Your task to perform on an android device: turn off smart reply in the gmail app Image 0: 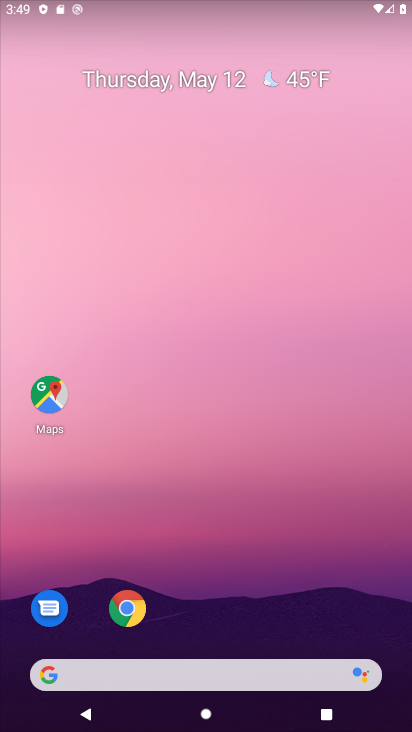
Step 0: drag from (240, 549) to (219, 0)
Your task to perform on an android device: turn off smart reply in the gmail app Image 1: 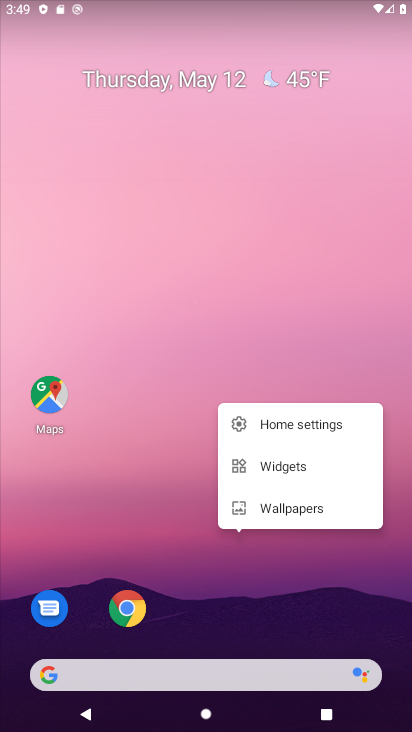
Step 1: click (162, 531)
Your task to perform on an android device: turn off smart reply in the gmail app Image 2: 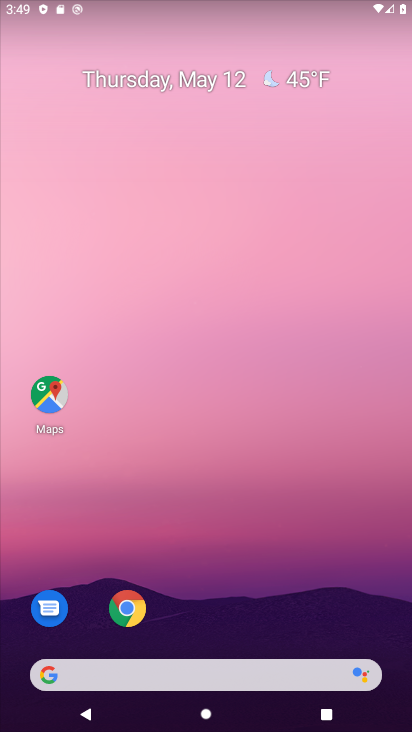
Step 2: drag from (162, 531) to (183, 34)
Your task to perform on an android device: turn off smart reply in the gmail app Image 3: 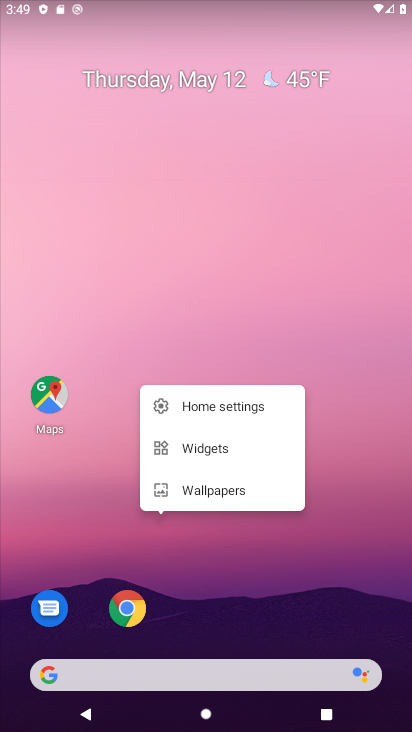
Step 3: click (319, 560)
Your task to perform on an android device: turn off smart reply in the gmail app Image 4: 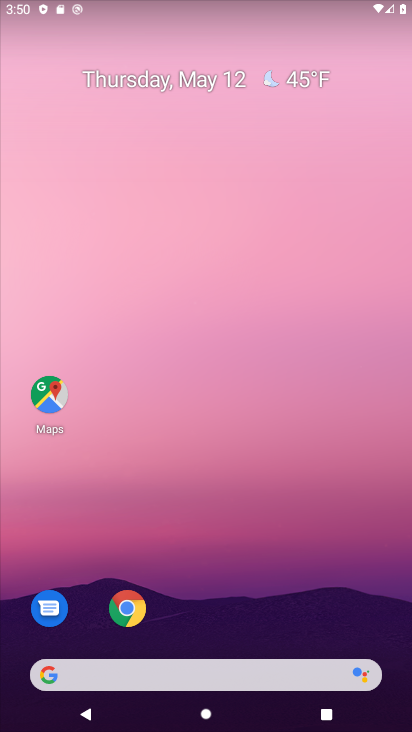
Step 4: drag from (319, 560) to (224, 130)
Your task to perform on an android device: turn off smart reply in the gmail app Image 5: 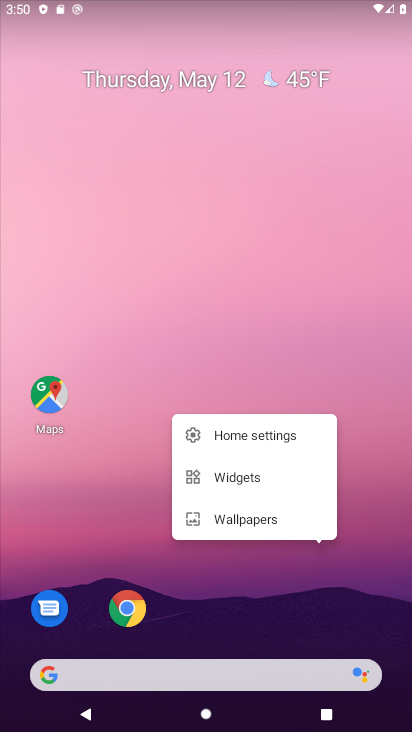
Step 5: click (195, 558)
Your task to perform on an android device: turn off smart reply in the gmail app Image 6: 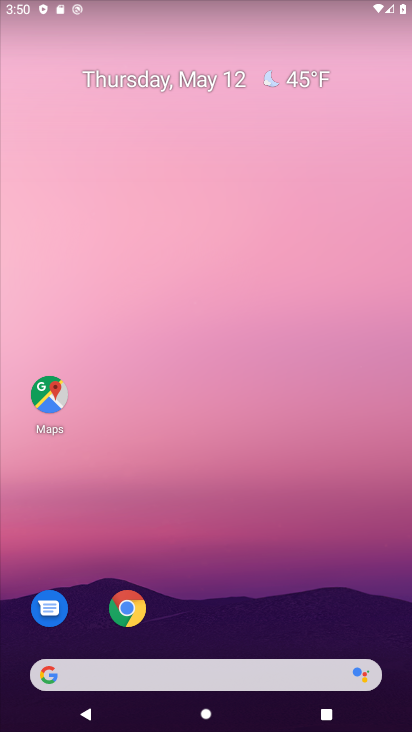
Step 6: drag from (195, 558) to (186, 113)
Your task to perform on an android device: turn off smart reply in the gmail app Image 7: 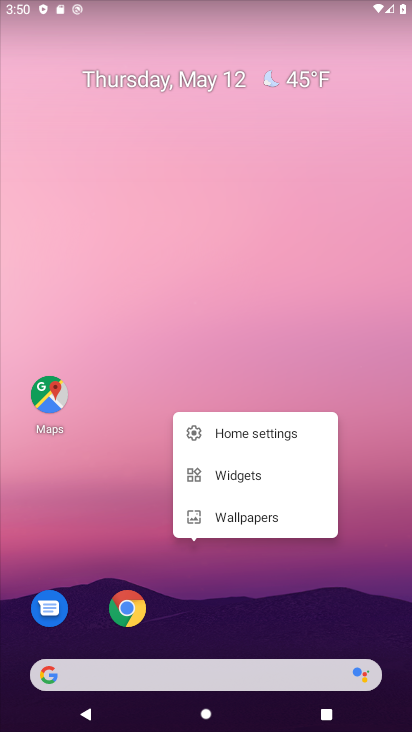
Step 7: click (250, 557)
Your task to perform on an android device: turn off smart reply in the gmail app Image 8: 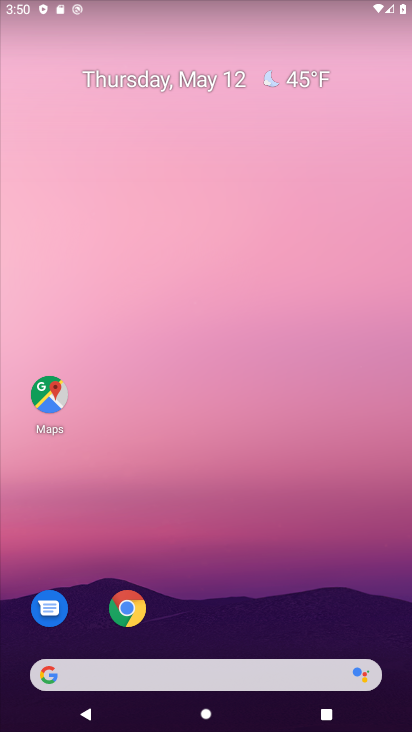
Step 8: drag from (250, 574) to (223, 239)
Your task to perform on an android device: turn off smart reply in the gmail app Image 9: 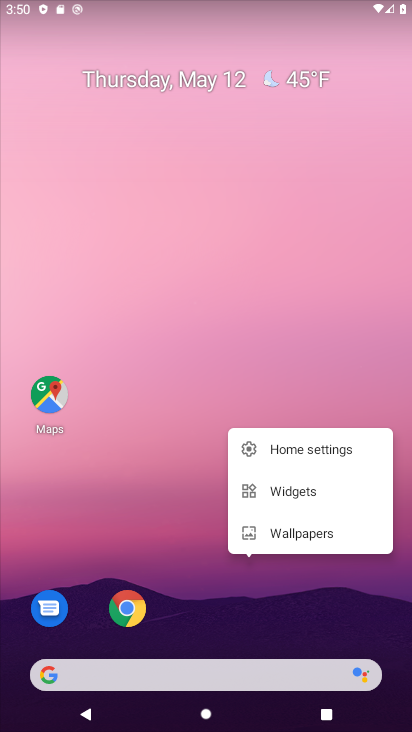
Step 9: click (179, 526)
Your task to perform on an android device: turn off smart reply in the gmail app Image 10: 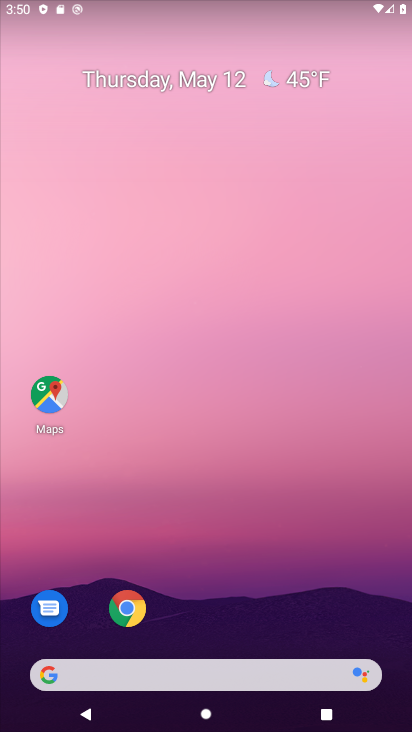
Step 10: drag from (179, 526) to (151, 293)
Your task to perform on an android device: turn off smart reply in the gmail app Image 11: 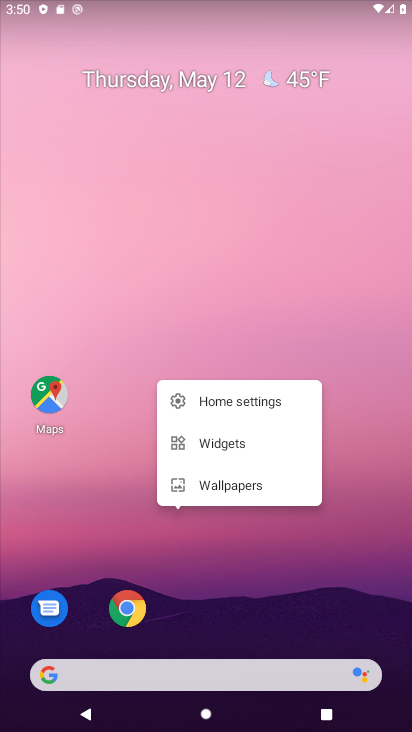
Step 11: click (211, 580)
Your task to perform on an android device: turn off smart reply in the gmail app Image 12: 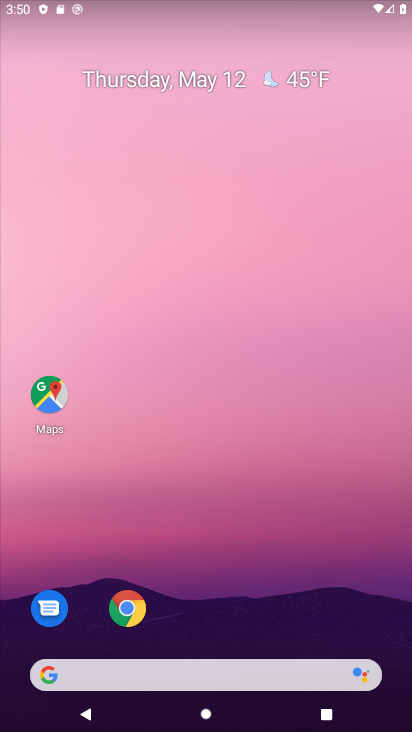
Step 12: drag from (235, 579) to (216, 309)
Your task to perform on an android device: turn off smart reply in the gmail app Image 13: 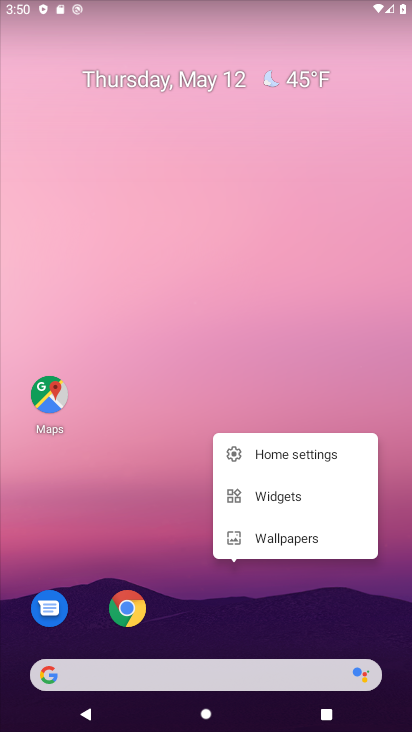
Step 13: click (185, 515)
Your task to perform on an android device: turn off smart reply in the gmail app Image 14: 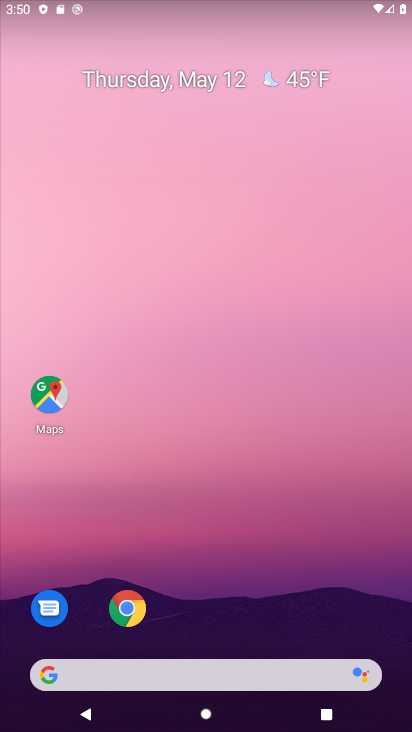
Step 14: drag from (256, 587) to (141, 247)
Your task to perform on an android device: turn off smart reply in the gmail app Image 15: 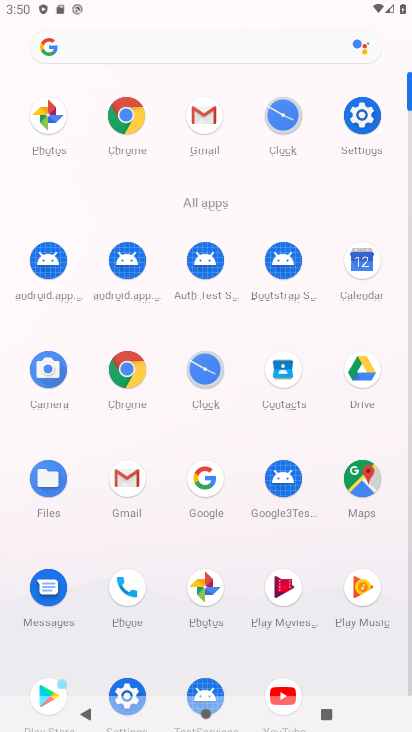
Step 15: click (189, 139)
Your task to perform on an android device: turn off smart reply in the gmail app Image 16: 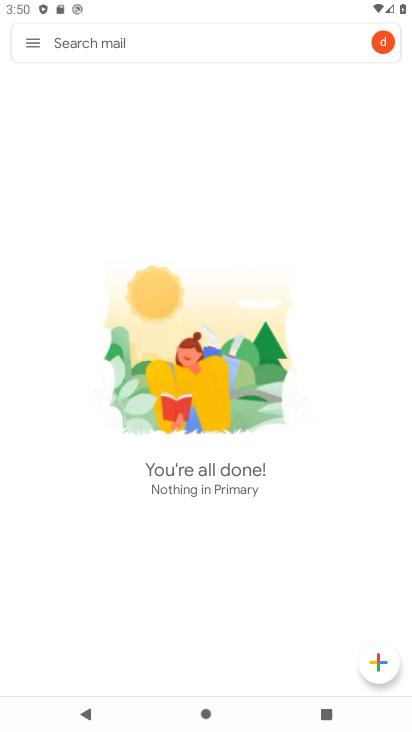
Step 16: click (27, 42)
Your task to perform on an android device: turn off smart reply in the gmail app Image 17: 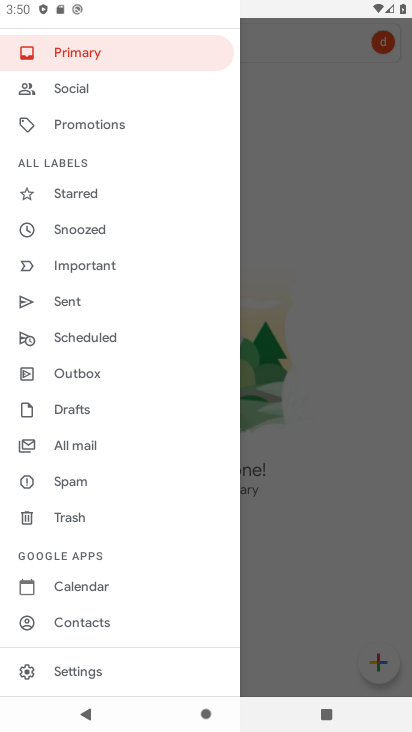
Step 17: click (90, 671)
Your task to perform on an android device: turn off smart reply in the gmail app Image 18: 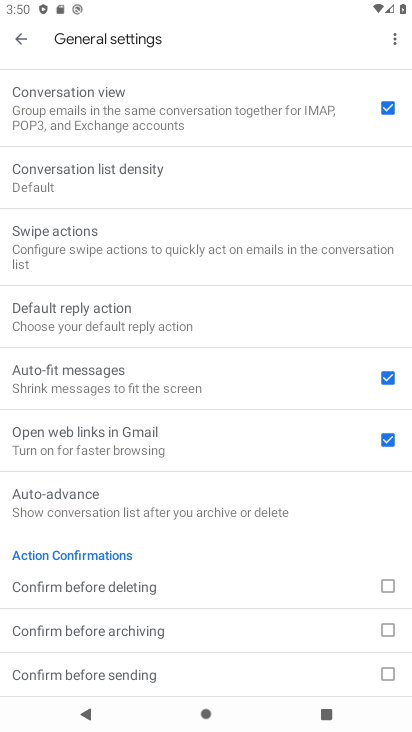
Step 18: drag from (225, 521) to (164, 184)
Your task to perform on an android device: turn off smart reply in the gmail app Image 19: 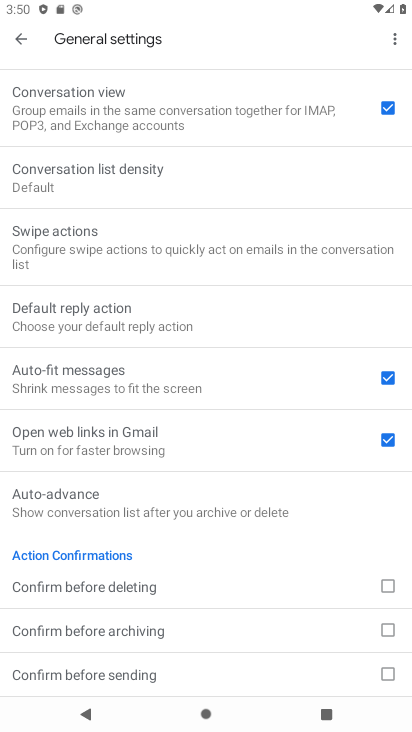
Step 19: drag from (164, 184) to (144, 428)
Your task to perform on an android device: turn off smart reply in the gmail app Image 20: 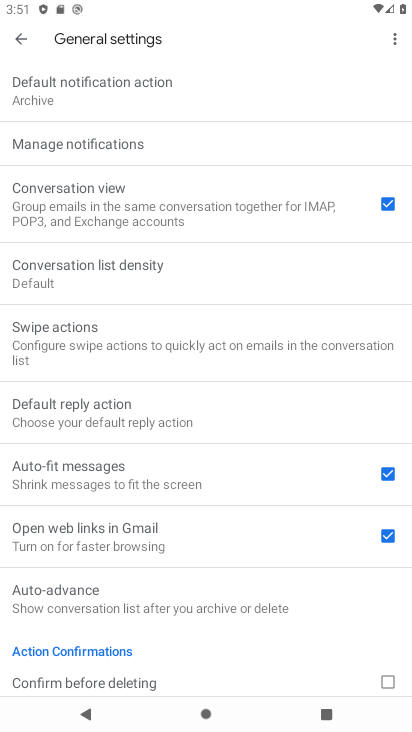
Step 20: click (28, 36)
Your task to perform on an android device: turn off smart reply in the gmail app Image 21: 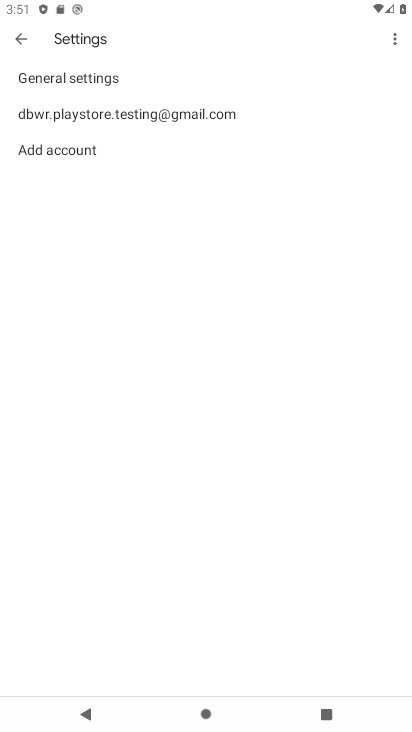
Step 21: click (66, 119)
Your task to perform on an android device: turn off smart reply in the gmail app Image 22: 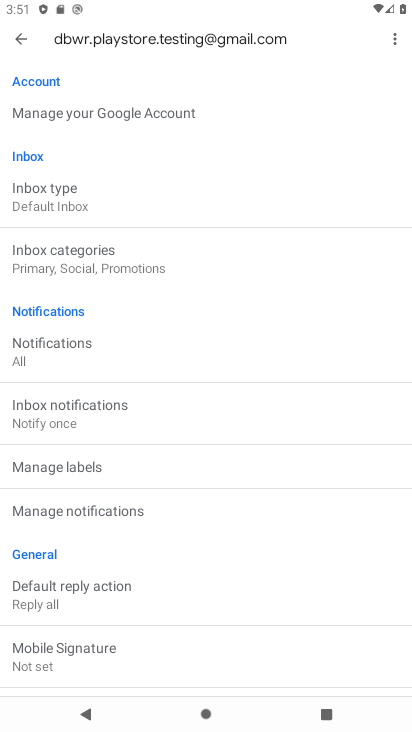
Step 22: click (70, 187)
Your task to perform on an android device: turn off smart reply in the gmail app Image 23: 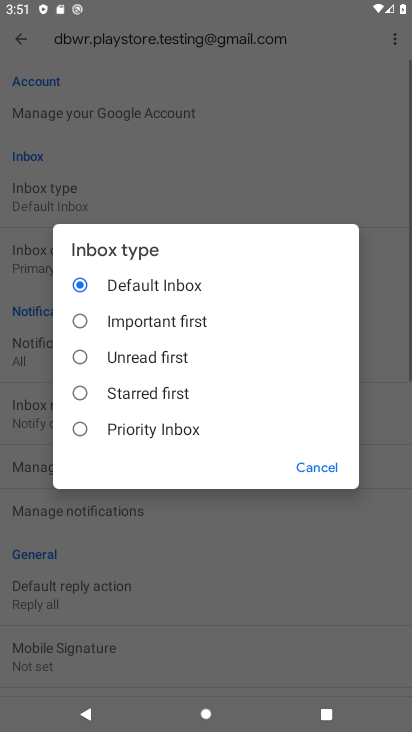
Step 23: click (70, 187)
Your task to perform on an android device: turn off smart reply in the gmail app Image 24: 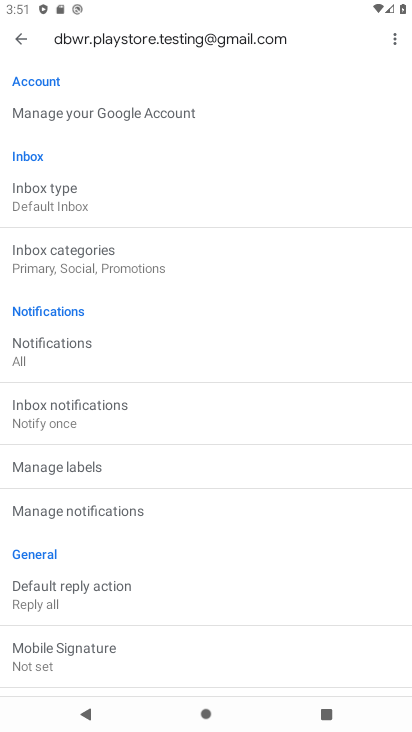
Step 24: drag from (178, 500) to (141, 264)
Your task to perform on an android device: turn off smart reply in the gmail app Image 25: 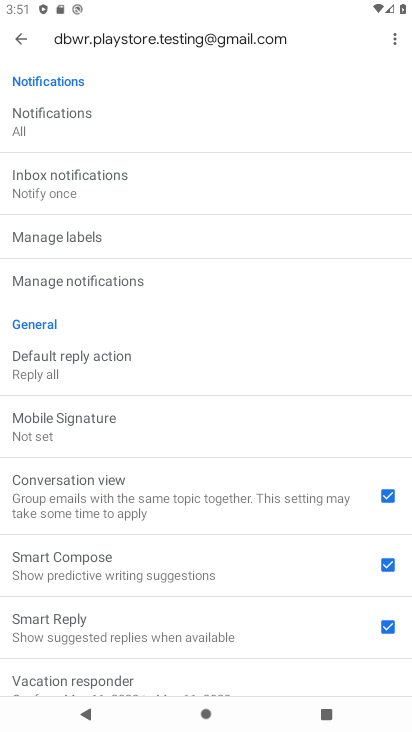
Step 25: click (298, 632)
Your task to perform on an android device: turn off smart reply in the gmail app Image 26: 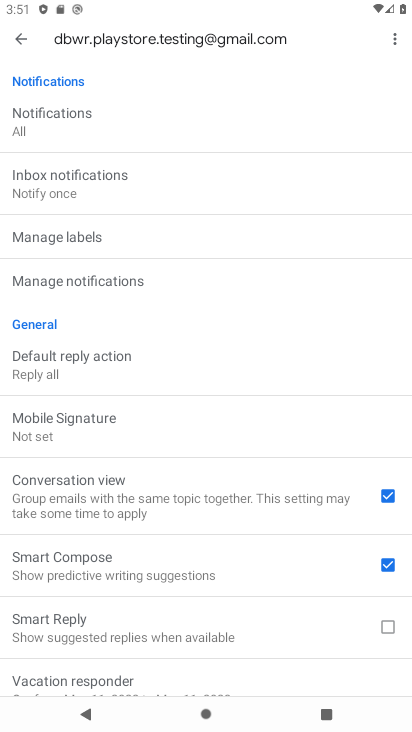
Step 26: task complete